Your task to perform on an android device: Do I have any events this weekend? Image 0: 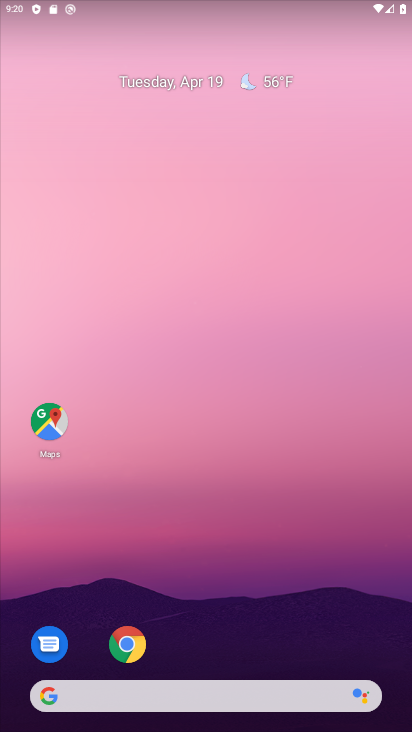
Step 0: drag from (204, 614) to (194, 206)
Your task to perform on an android device: Do I have any events this weekend? Image 1: 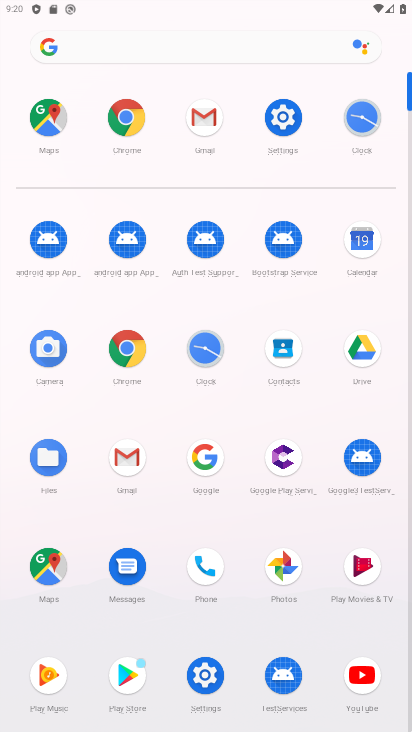
Step 1: click (372, 236)
Your task to perform on an android device: Do I have any events this weekend? Image 2: 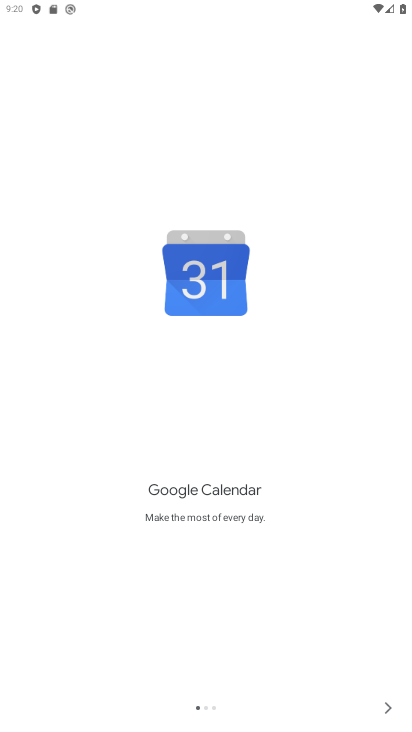
Step 2: click (386, 703)
Your task to perform on an android device: Do I have any events this weekend? Image 3: 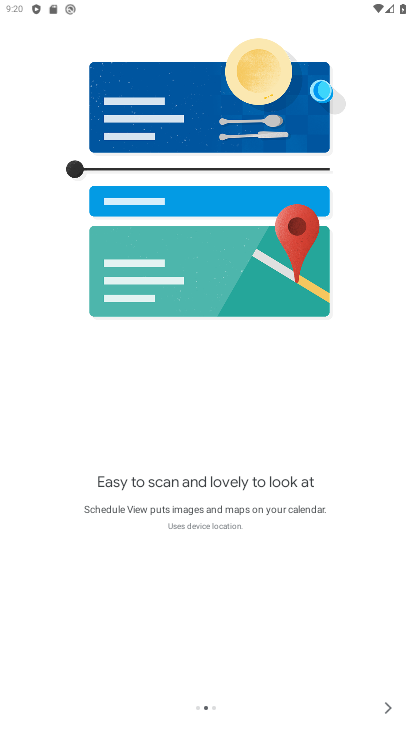
Step 3: click (386, 699)
Your task to perform on an android device: Do I have any events this weekend? Image 4: 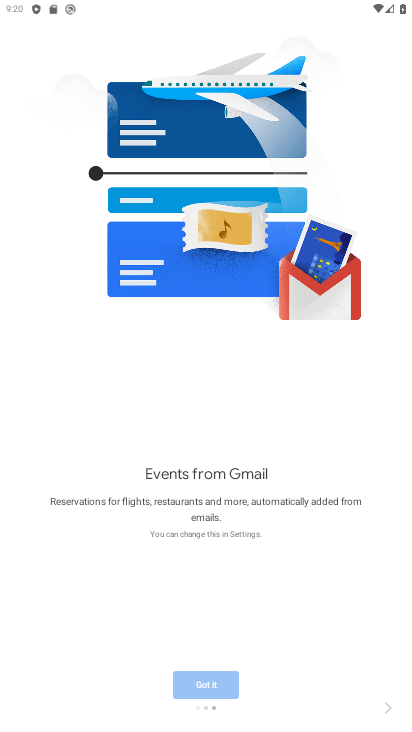
Step 4: click (385, 706)
Your task to perform on an android device: Do I have any events this weekend? Image 5: 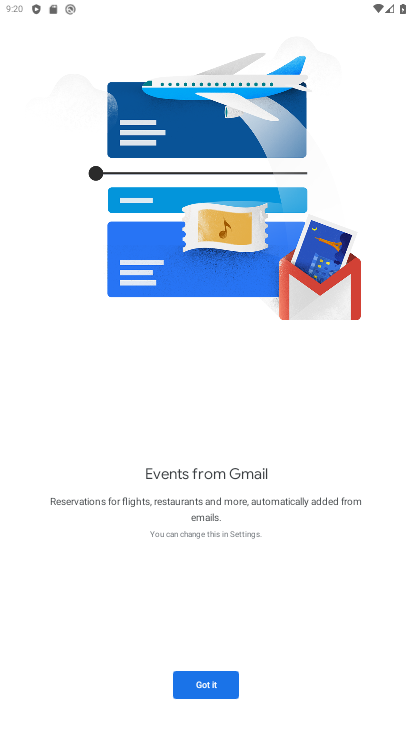
Step 5: click (211, 674)
Your task to perform on an android device: Do I have any events this weekend? Image 6: 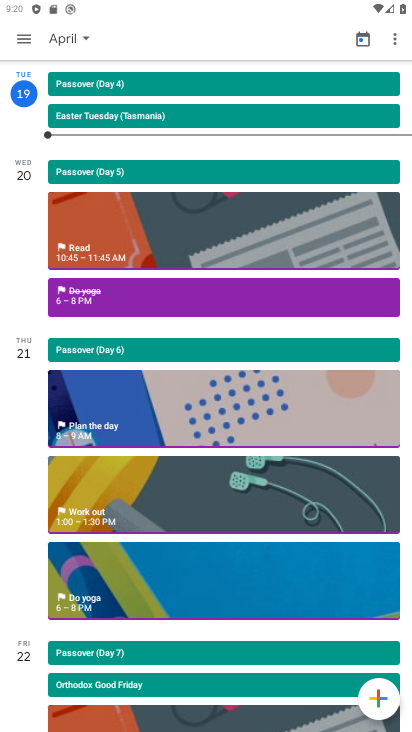
Step 6: click (80, 42)
Your task to perform on an android device: Do I have any events this weekend? Image 7: 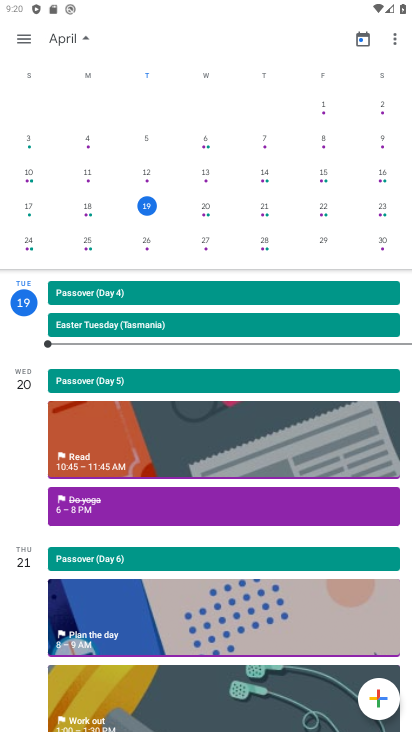
Step 7: click (374, 200)
Your task to perform on an android device: Do I have any events this weekend? Image 8: 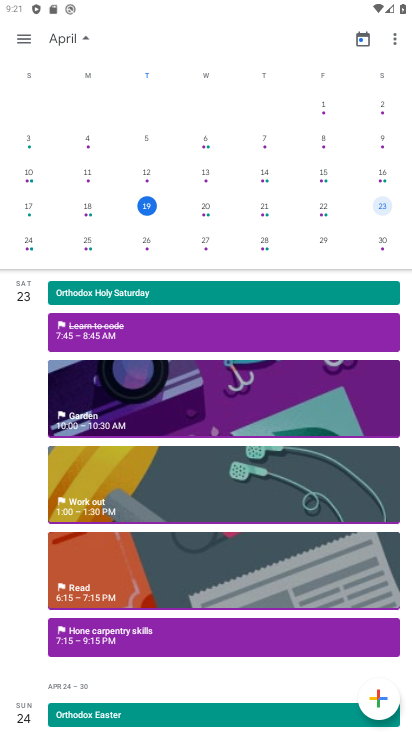
Step 8: click (157, 404)
Your task to perform on an android device: Do I have any events this weekend? Image 9: 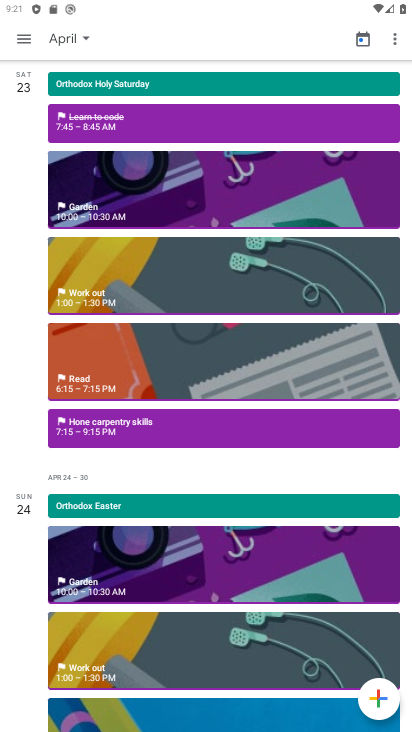
Step 9: task complete